Your task to perform on an android device: Clear the shopping cart on walmart.com. Search for alienware area 51 on walmart.com, select the first entry, add it to the cart, then select checkout. Image 0: 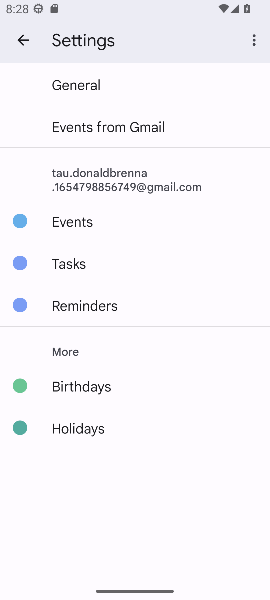
Step 0: press home button
Your task to perform on an android device: Clear the shopping cart on walmart.com. Search for alienware area 51 on walmart.com, select the first entry, add it to the cart, then select checkout. Image 1: 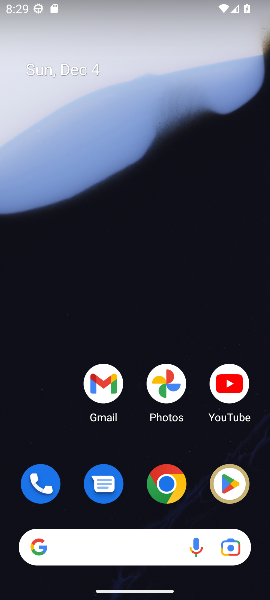
Step 1: click (173, 481)
Your task to perform on an android device: Clear the shopping cart on walmart.com. Search for alienware area 51 on walmart.com, select the first entry, add it to the cart, then select checkout. Image 2: 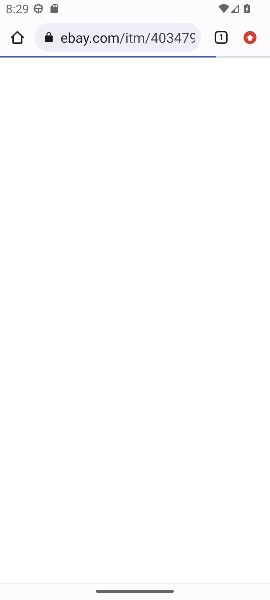
Step 2: click (94, 40)
Your task to perform on an android device: Clear the shopping cart on walmart.com. Search for alienware area 51 on walmart.com, select the first entry, add it to the cart, then select checkout. Image 3: 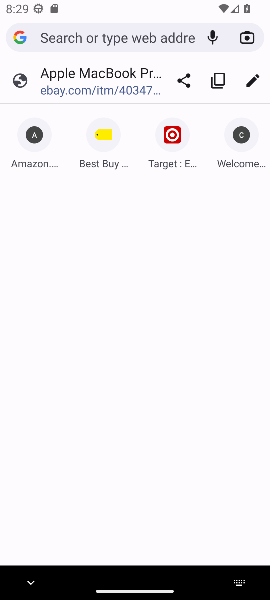
Step 3: type "walmart.com"
Your task to perform on an android device: Clear the shopping cart on walmart.com. Search for alienware area 51 on walmart.com, select the first entry, add it to the cart, then select checkout. Image 4: 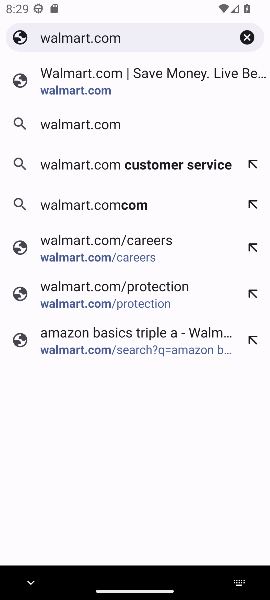
Step 4: click (86, 97)
Your task to perform on an android device: Clear the shopping cart on walmart.com. Search for alienware area 51 on walmart.com, select the first entry, add it to the cart, then select checkout. Image 5: 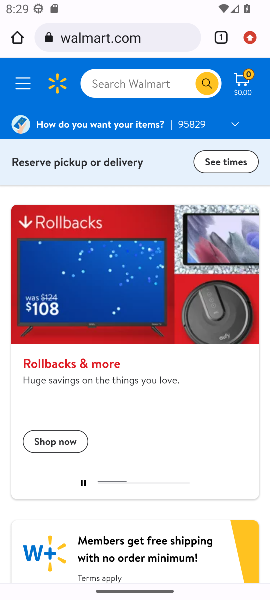
Step 5: click (248, 82)
Your task to perform on an android device: Clear the shopping cart on walmart.com. Search for alienware area 51 on walmart.com, select the first entry, add it to the cart, then select checkout. Image 6: 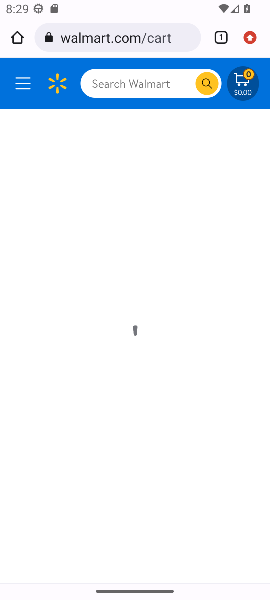
Step 6: click (242, 90)
Your task to perform on an android device: Clear the shopping cart on walmart.com. Search for alienware area 51 on walmart.com, select the first entry, add it to the cart, then select checkout. Image 7: 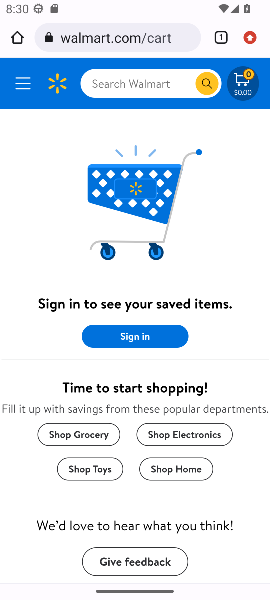
Step 7: click (139, 83)
Your task to perform on an android device: Clear the shopping cart on walmart.com. Search for alienware area 51 on walmart.com, select the first entry, add it to the cart, then select checkout. Image 8: 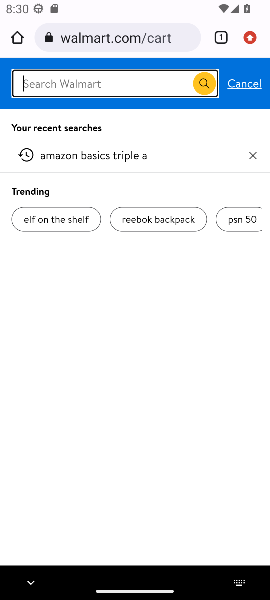
Step 8: type "alienware area 51"
Your task to perform on an android device: Clear the shopping cart on walmart.com. Search for alienware area 51 on walmart.com, select the first entry, add it to the cart, then select checkout. Image 9: 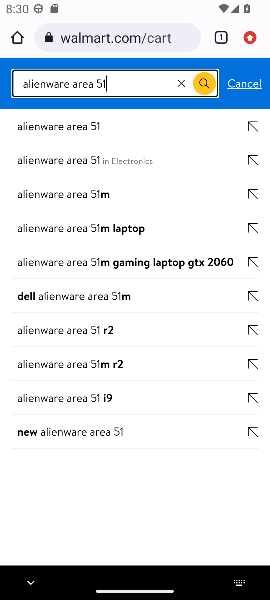
Step 9: click (71, 128)
Your task to perform on an android device: Clear the shopping cart on walmart.com. Search for alienware area 51 on walmart.com, select the first entry, add it to the cart, then select checkout. Image 10: 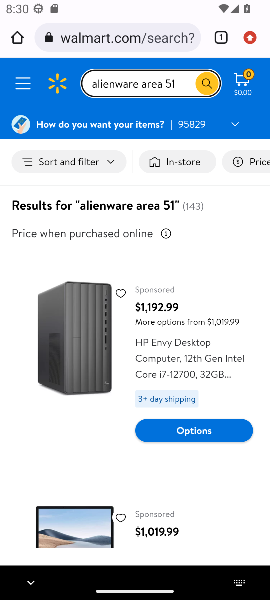
Step 10: task complete